Your task to perform on an android device: Go to Wikipedia Image 0: 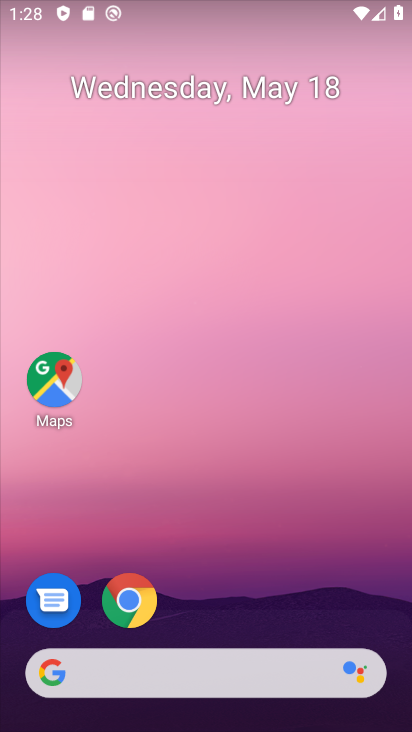
Step 0: drag from (210, 582) to (210, 180)
Your task to perform on an android device: Go to Wikipedia Image 1: 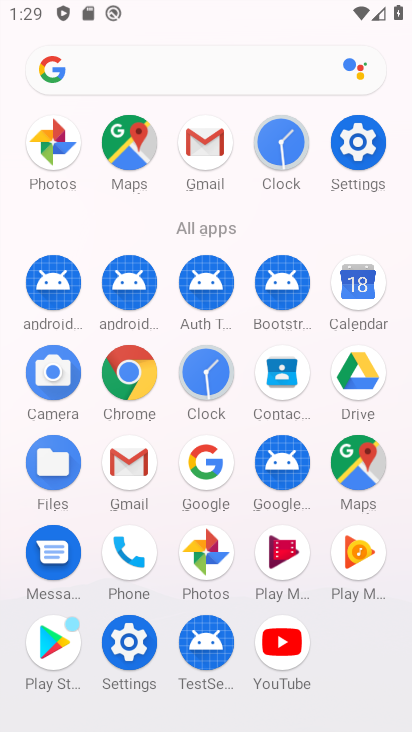
Step 1: click (130, 379)
Your task to perform on an android device: Go to Wikipedia Image 2: 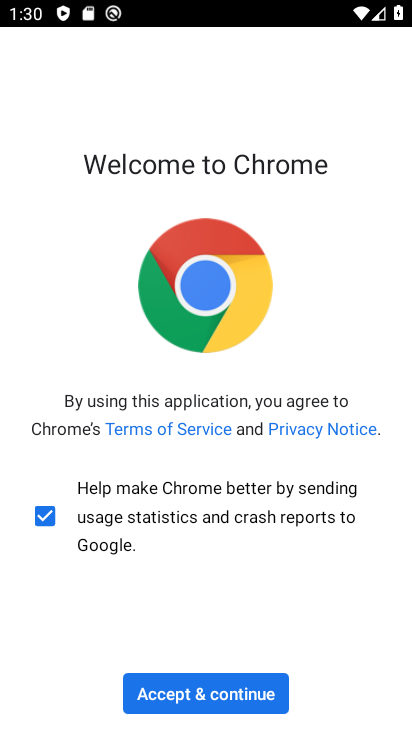
Step 2: click (186, 691)
Your task to perform on an android device: Go to Wikipedia Image 3: 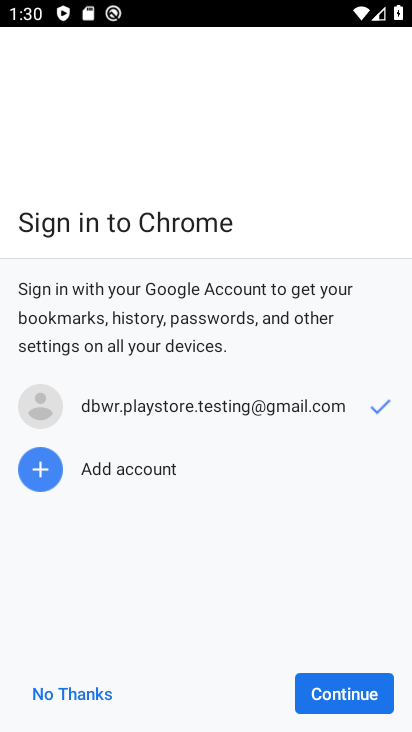
Step 3: click (349, 700)
Your task to perform on an android device: Go to Wikipedia Image 4: 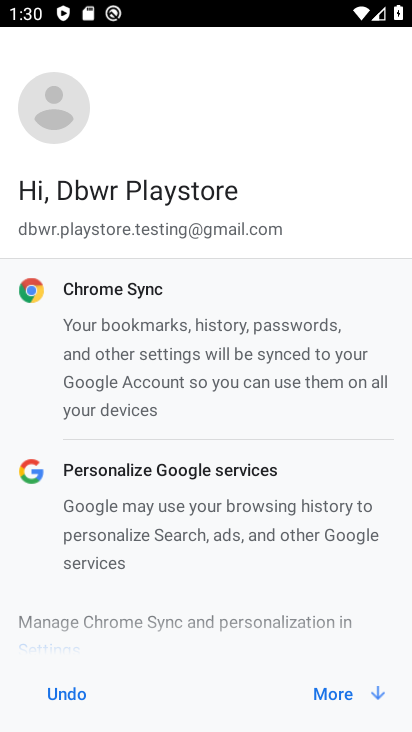
Step 4: click (337, 697)
Your task to perform on an android device: Go to Wikipedia Image 5: 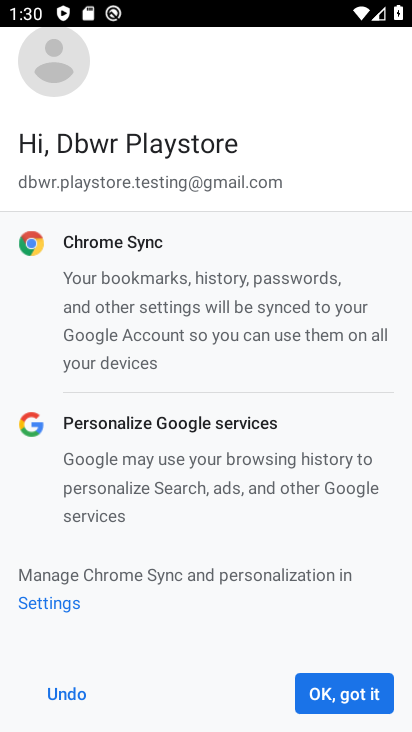
Step 5: click (337, 697)
Your task to perform on an android device: Go to Wikipedia Image 6: 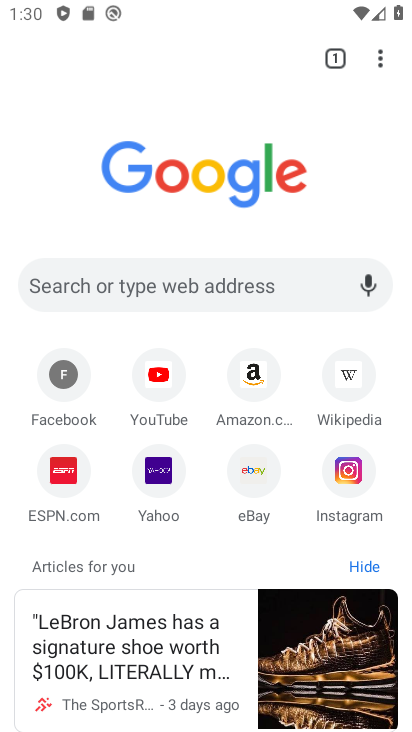
Step 6: click (342, 379)
Your task to perform on an android device: Go to Wikipedia Image 7: 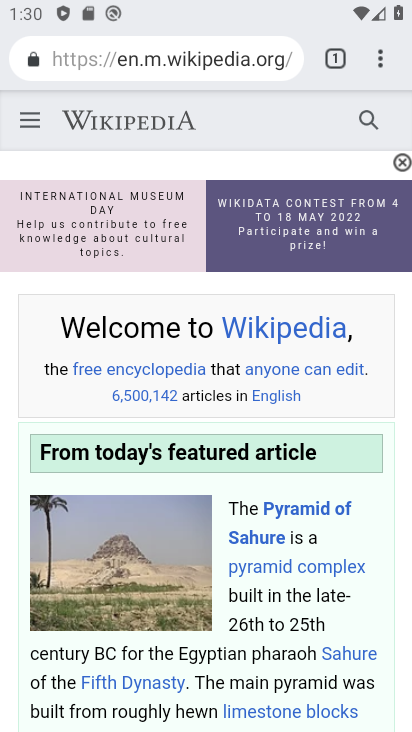
Step 7: task complete